Your task to perform on an android device: Open Android settings Image 0: 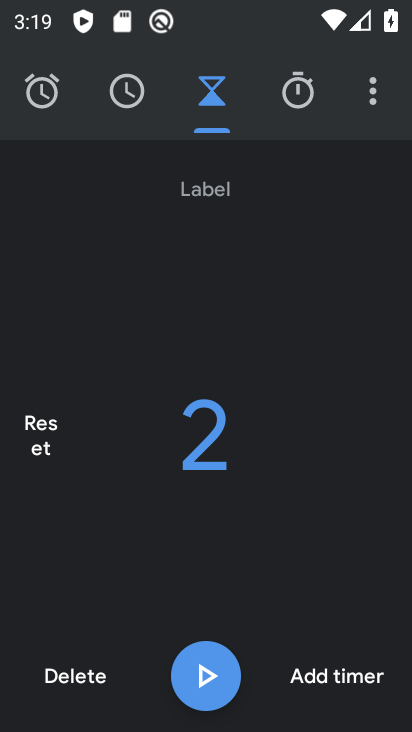
Step 0: press home button
Your task to perform on an android device: Open Android settings Image 1: 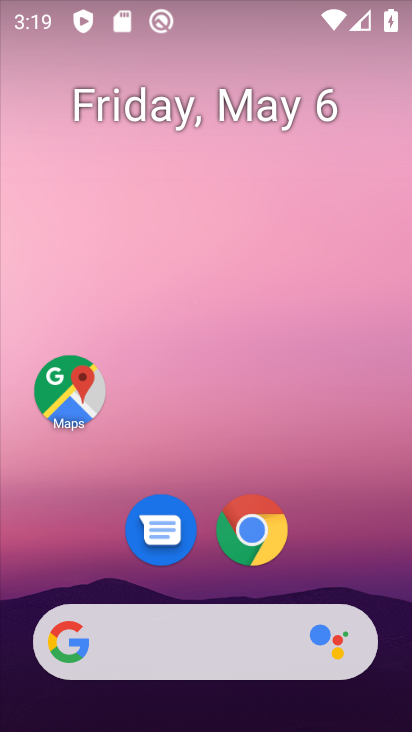
Step 1: drag from (286, 547) to (275, 213)
Your task to perform on an android device: Open Android settings Image 2: 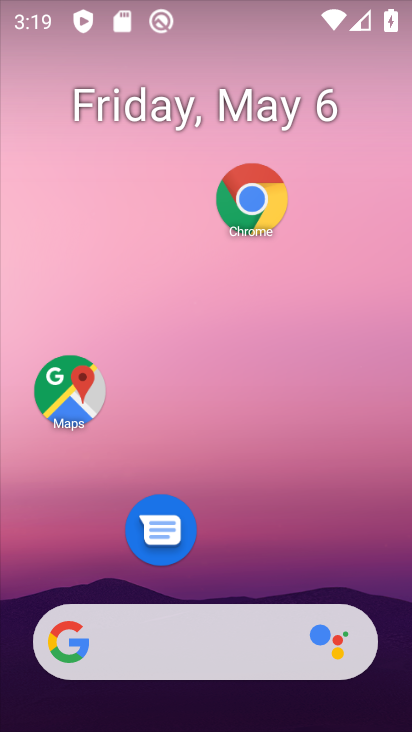
Step 2: drag from (281, 599) to (307, 222)
Your task to perform on an android device: Open Android settings Image 3: 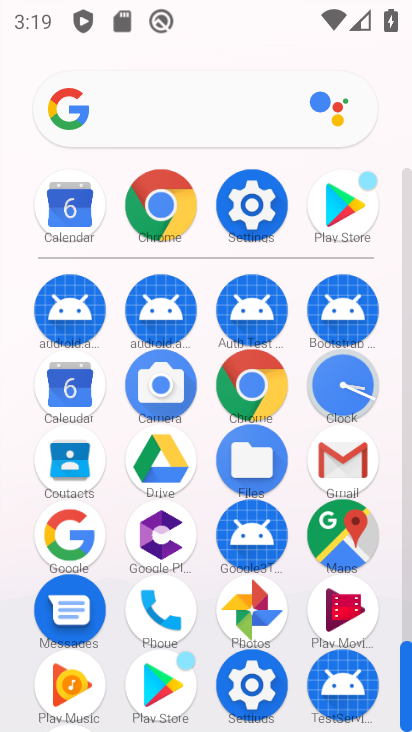
Step 3: click (259, 207)
Your task to perform on an android device: Open Android settings Image 4: 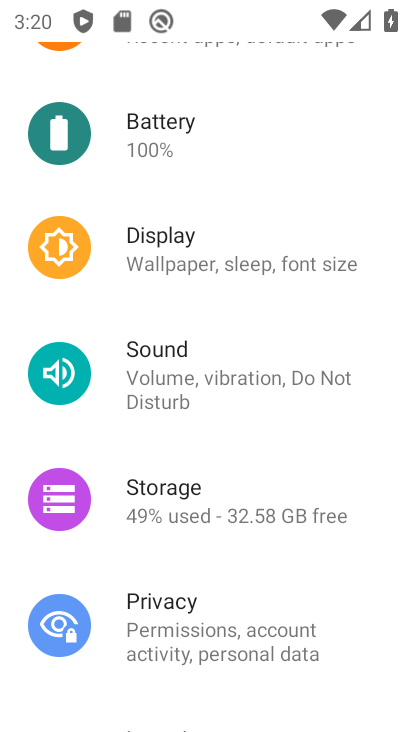
Step 4: drag from (125, 569) to (53, 139)
Your task to perform on an android device: Open Android settings Image 5: 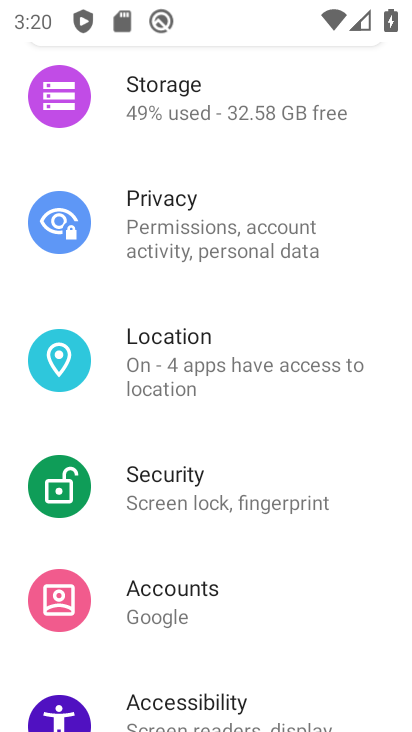
Step 5: drag from (122, 545) to (196, 35)
Your task to perform on an android device: Open Android settings Image 6: 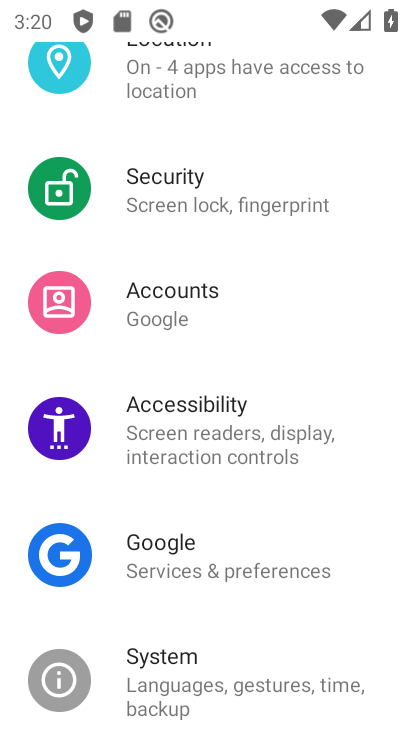
Step 6: drag from (200, 267) to (395, 246)
Your task to perform on an android device: Open Android settings Image 7: 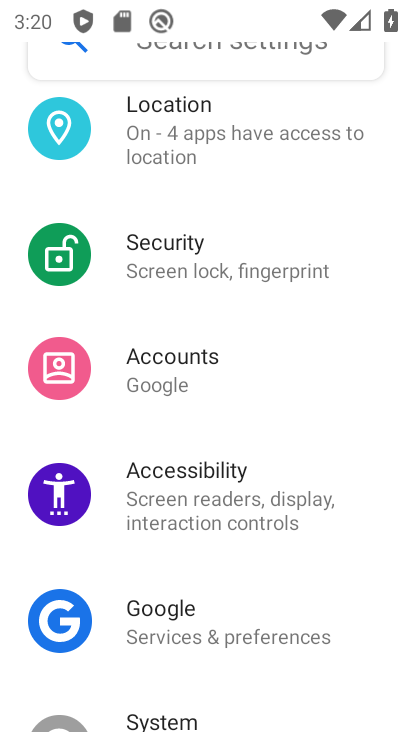
Step 7: drag from (229, 637) to (243, 271)
Your task to perform on an android device: Open Android settings Image 8: 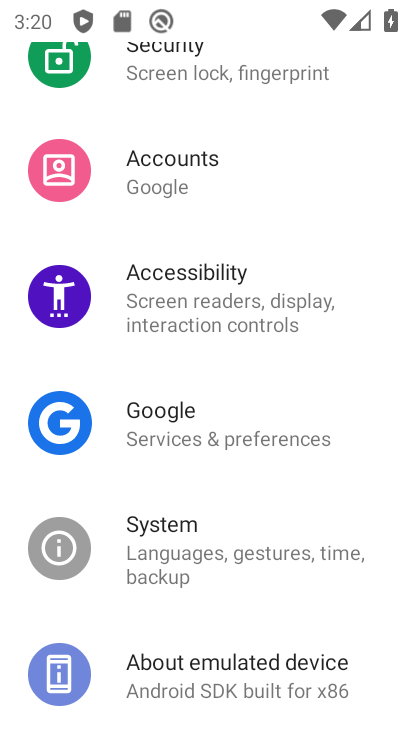
Step 8: drag from (260, 644) to (285, 300)
Your task to perform on an android device: Open Android settings Image 9: 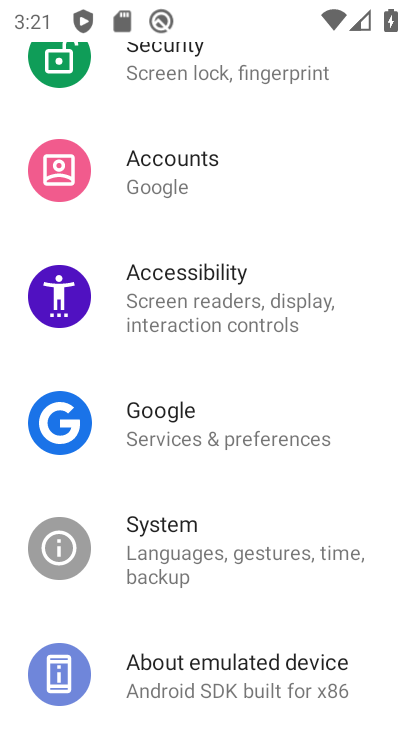
Step 9: click (223, 669)
Your task to perform on an android device: Open Android settings Image 10: 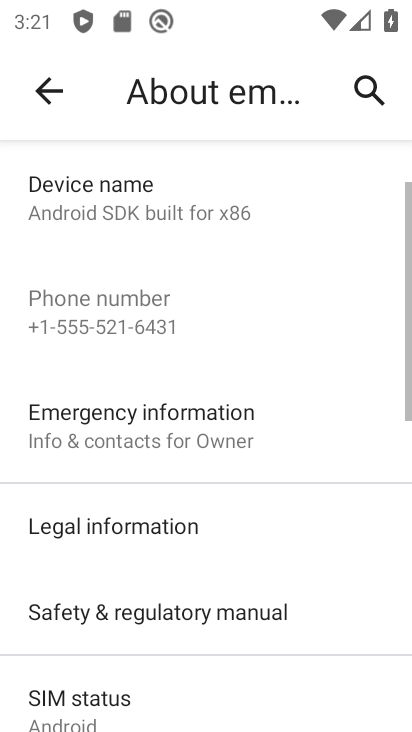
Step 10: drag from (225, 676) to (329, 343)
Your task to perform on an android device: Open Android settings Image 11: 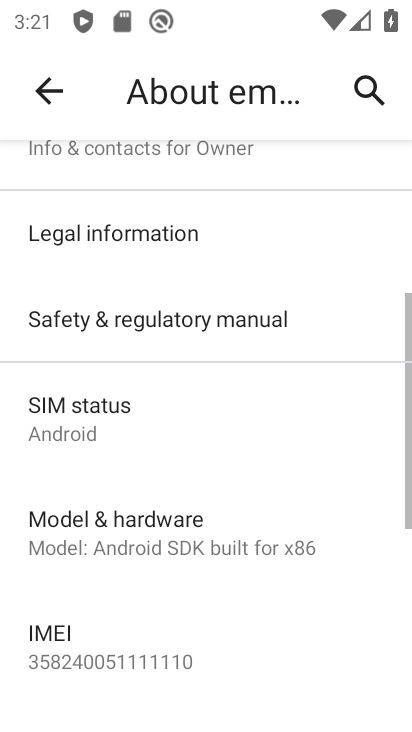
Step 11: drag from (237, 590) to (150, 312)
Your task to perform on an android device: Open Android settings Image 12: 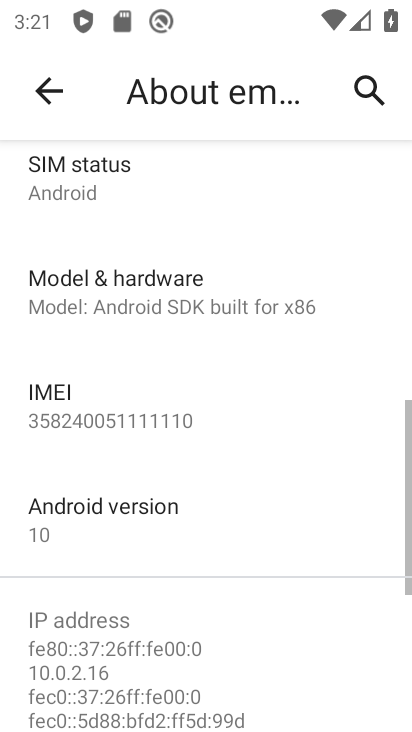
Step 12: click (173, 526)
Your task to perform on an android device: Open Android settings Image 13: 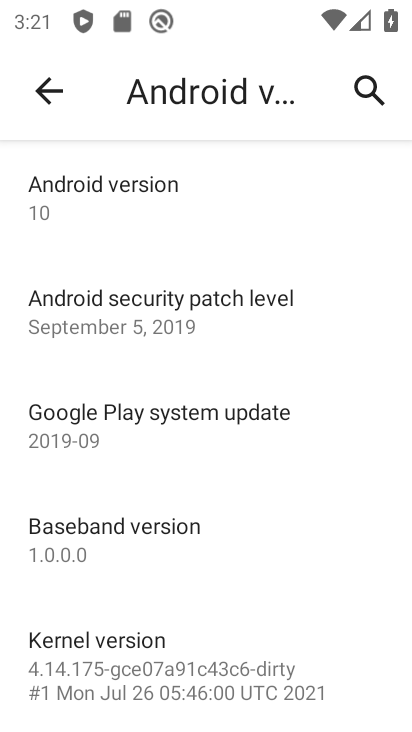
Step 13: click (160, 177)
Your task to perform on an android device: Open Android settings Image 14: 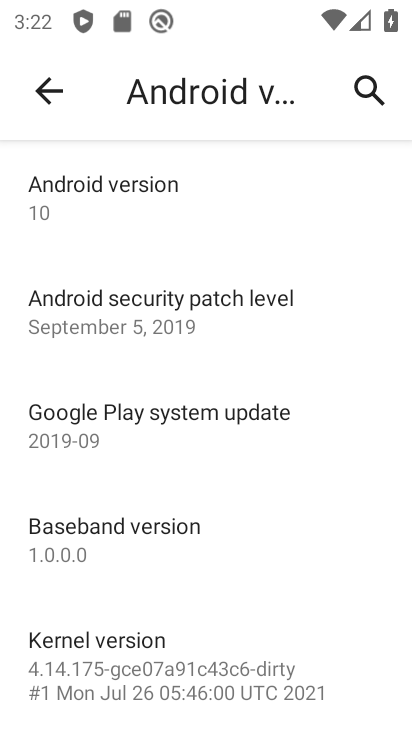
Step 14: click (184, 178)
Your task to perform on an android device: Open Android settings Image 15: 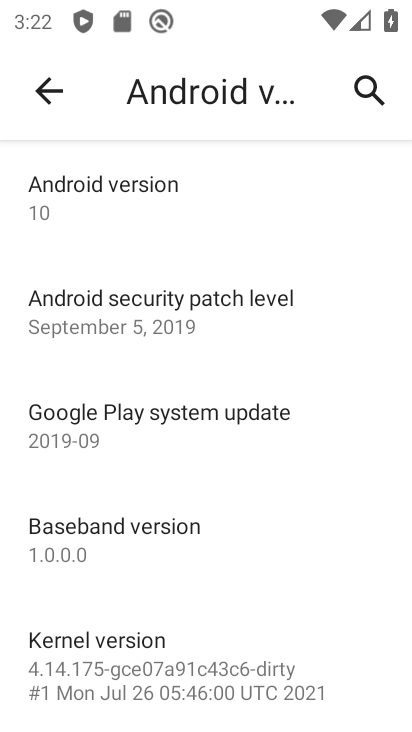
Step 15: task complete